Your task to perform on an android device: Find coffee shops on Maps Image 0: 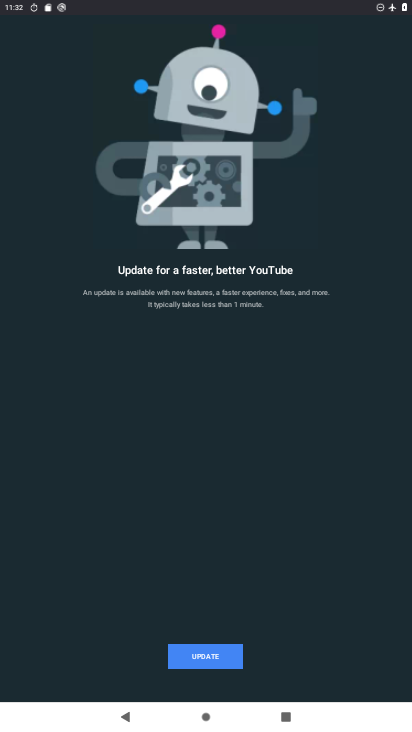
Step 0: press home button
Your task to perform on an android device: Find coffee shops on Maps Image 1: 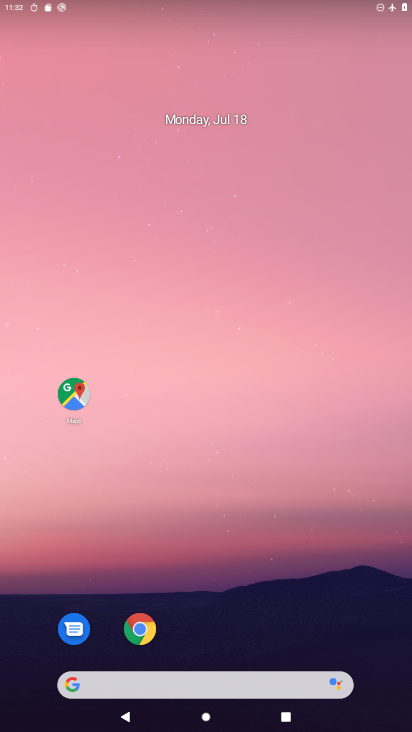
Step 1: drag from (331, 653) to (244, 110)
Your task to perform on an android device: Find coffee shops on Maps Image 2: 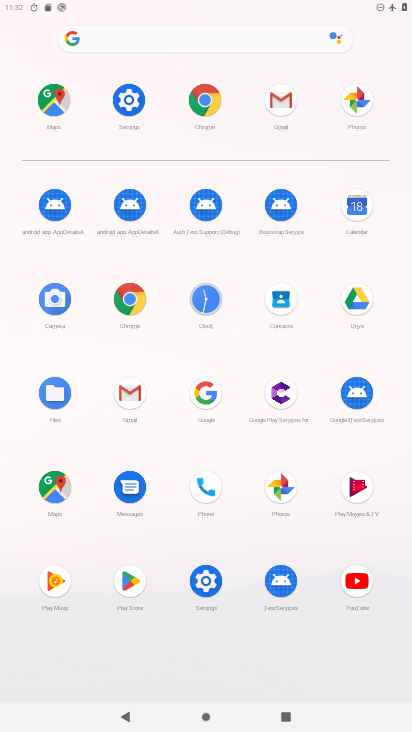
Step 2: click (54, 103)
Your task to perform on an android device: Find coffee shops on Maps Image 3: 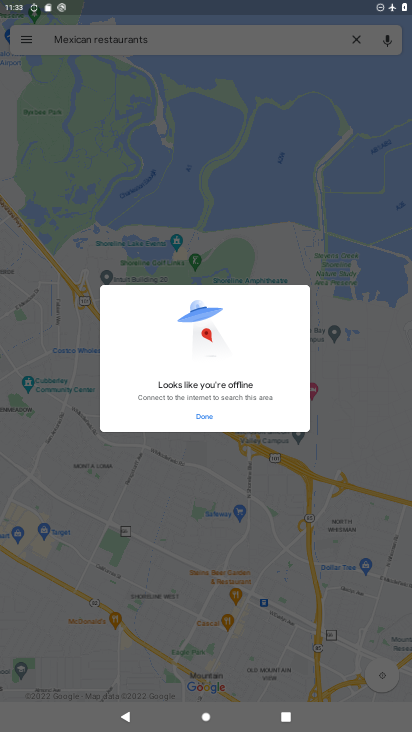
Step 3: click (205, 416)
Your task to perform on an android device: Find coffee shops on Maps Image 4: 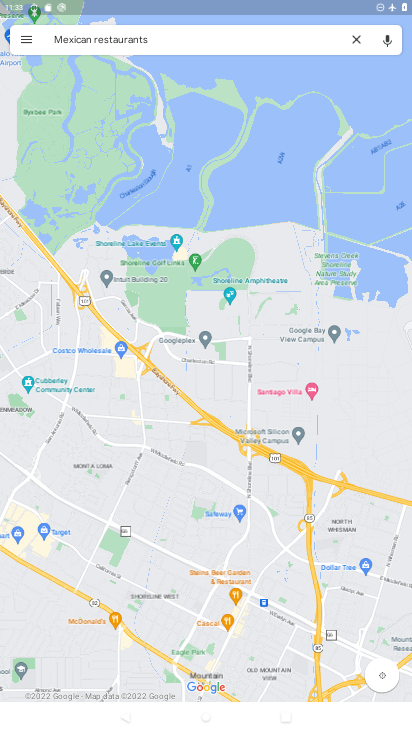
Step 4: click (241, 50)
Your task to perform on an android device: Find coffee shops on Maps Image 5: 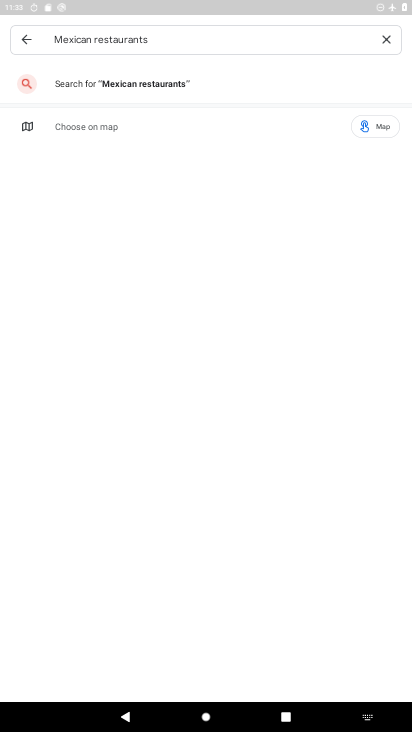
Step 5: click (384, 38)
Your task to perform on an android device: Find coffee shops on Maps Image 6: 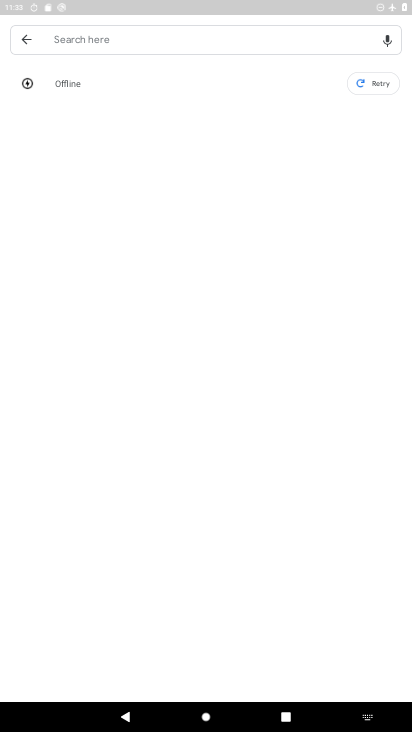
Step 6: type "coffee shops"
Your task to perform on an android device: Find coffee shops on Maps Image 7: 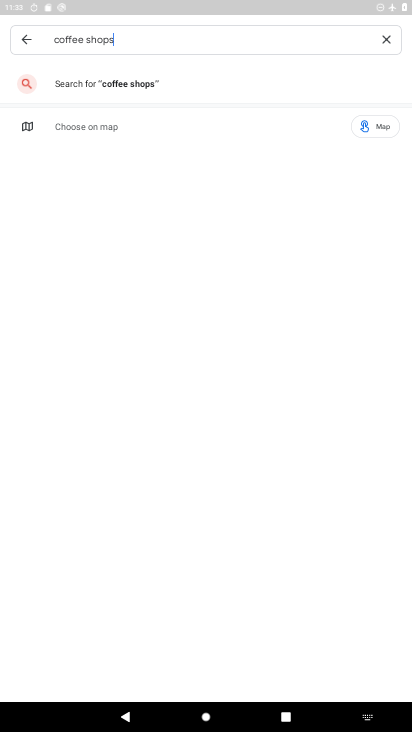
Step 7: press enter
Your task to perform on an android device: Find coffee shops on Maps Image 8: 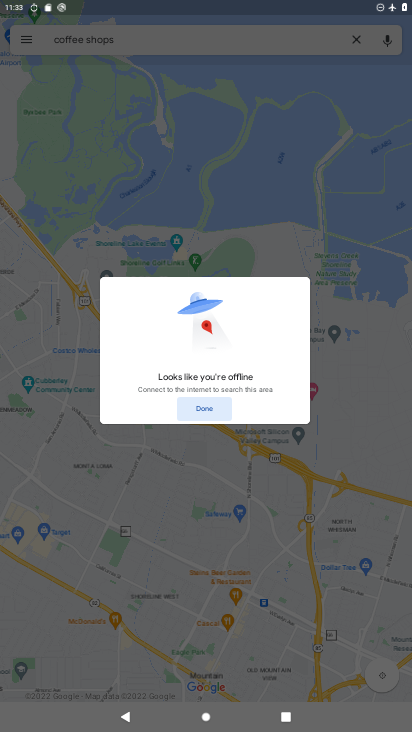
Step 8: task complete